Your task to perform on an android device: Show me the alarms in the clock app Image 0: 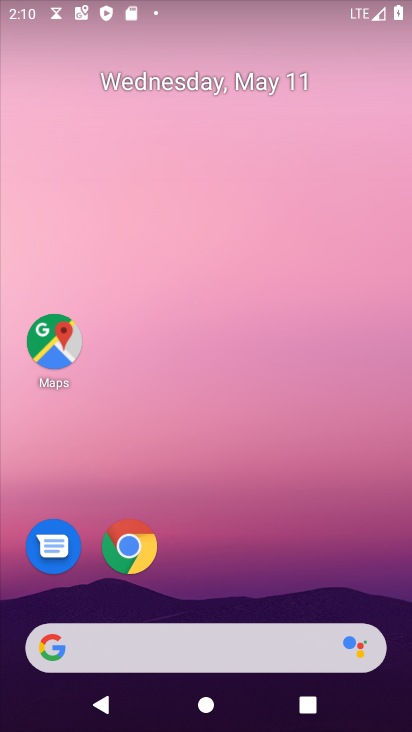
Step 0: drag from (262, 636) to (249, 12)
Your task to perform on an android device: Show me the alarms in the clock app Image 1: 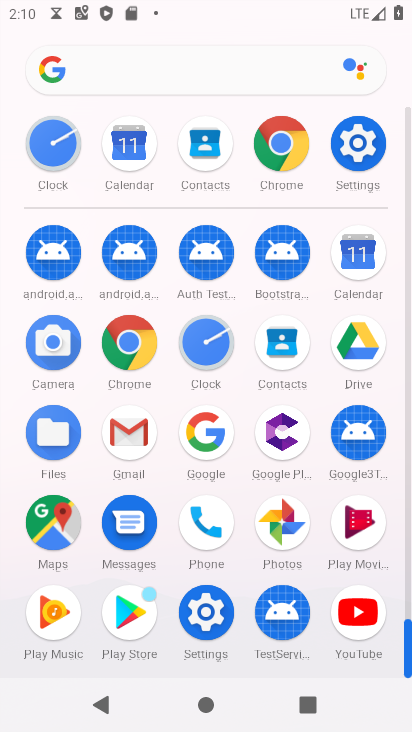
Step 1: click (218, 326)
Your task to perform on an android device: Show me the alarms in the clock app Image 2: 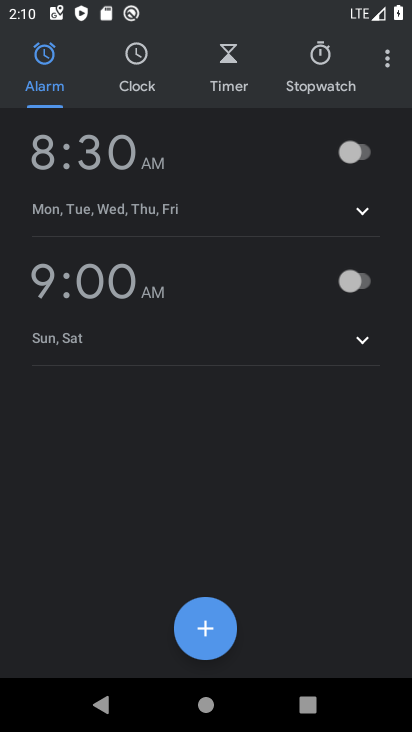
Step 2: task complete